Your task to perform on an android device: turn off notifications settings in the gmail app Image 0: 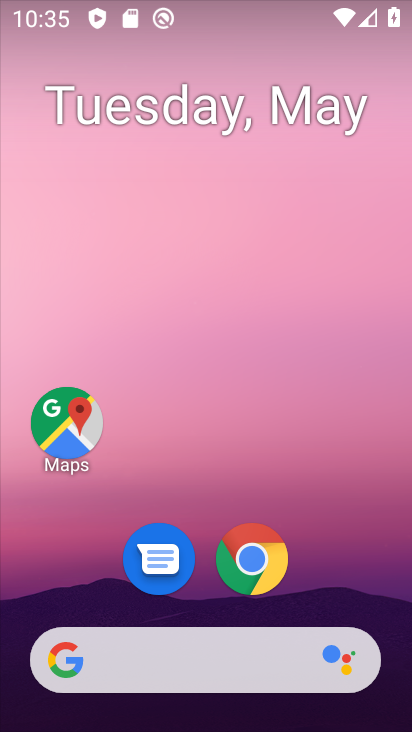
Step 0: press home button
Your task to perform on an android device: turn off notifications settings in the gmail app Image 1: 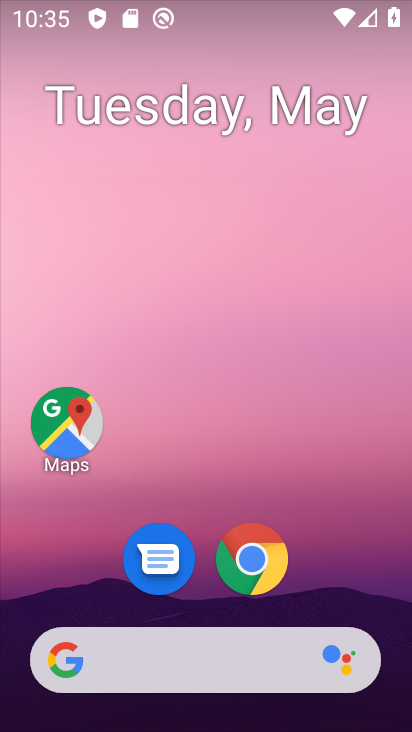
Step 1: drag from (388, 573) to (330, 179)
Your task to perform on an android device: turn off notifications settings in the gmail app Image 2: 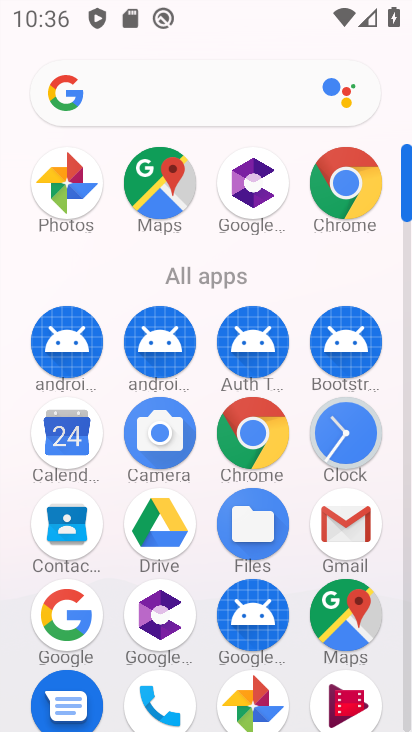
Step 2: click (338, 545)
Your task to perform on an android device: turn off notifications settings in the gmail app Image 3: 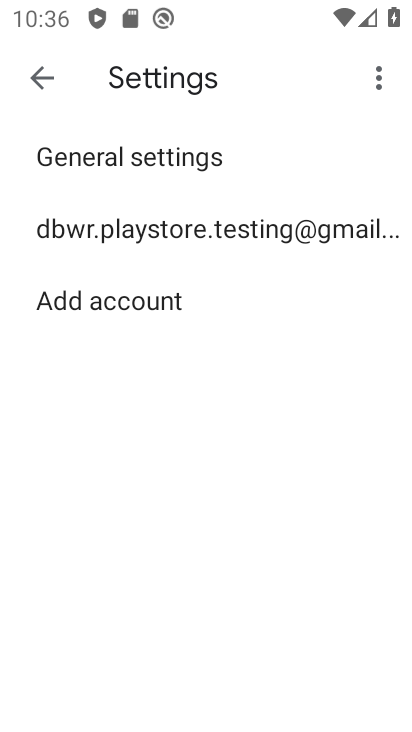
Step 3: click (206, 234)
Your task to perform on an android device: turn off notifications settings in the gmail app Image 4: 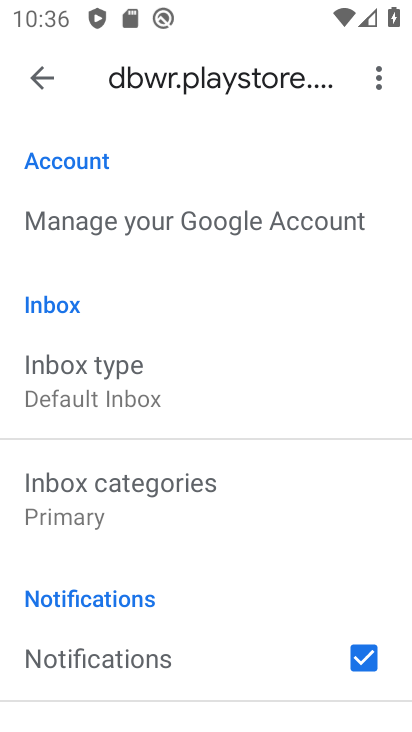
Step 4: drag from (191, 587) to (218, 386)
Your task to perform on an android device: turn off notifications settings in the gmail app Image 5: 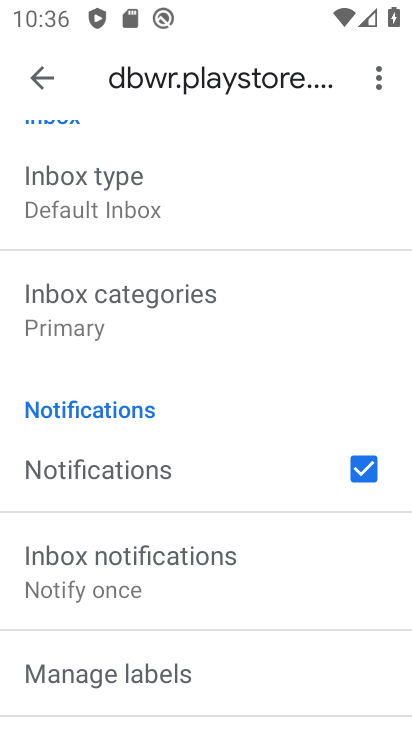
Step 5: click (111, 445)
Your task to perform on an android device: turn off notifications settings in the gmail app Image 6: 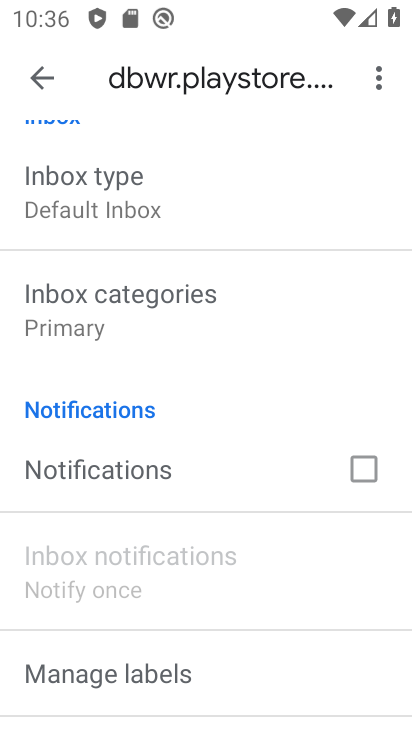
Step 6: task complete